Your task to perform on an android device: turn on wifi Image 0: 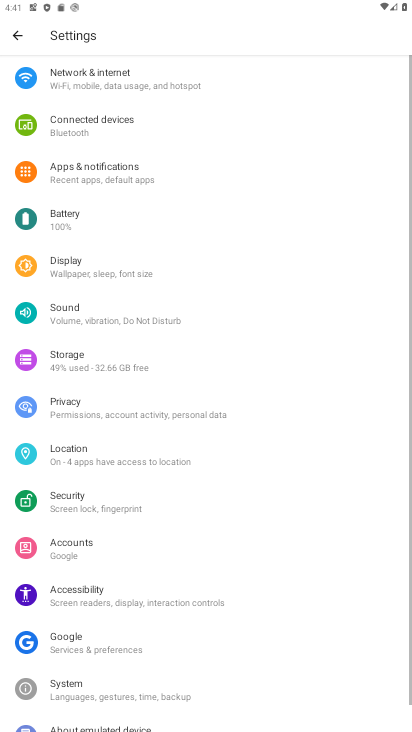
Step 0: click (129, 84)
Your task to perform on an android device: turn on wifi Image 1: 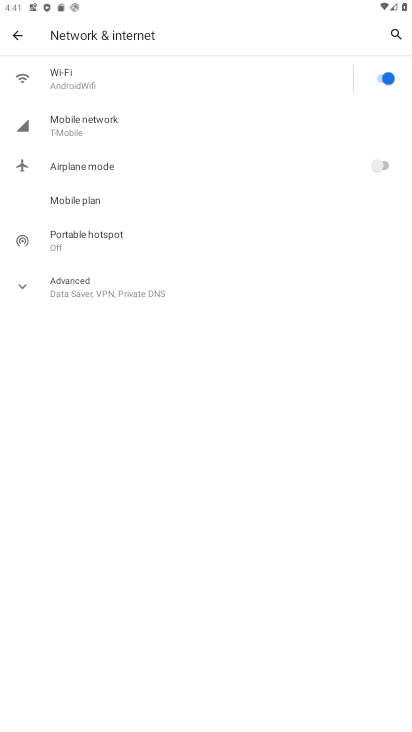
Step 1: task complete